Your task to perform on an android device: Go to eBay Image 0: 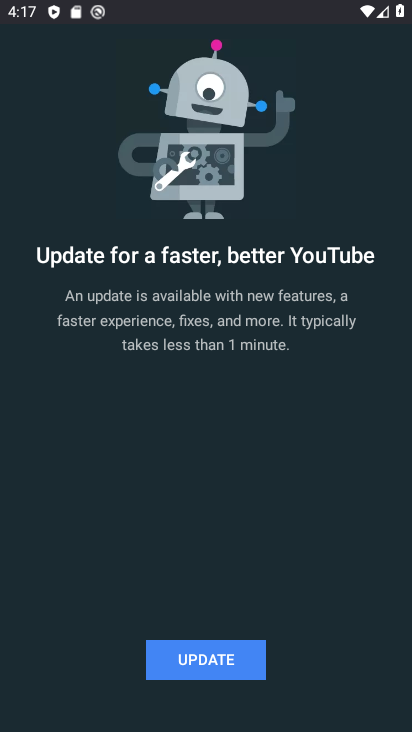
Step 0: press back button
Your task to perform on an android device: Go to eBay Image 1: 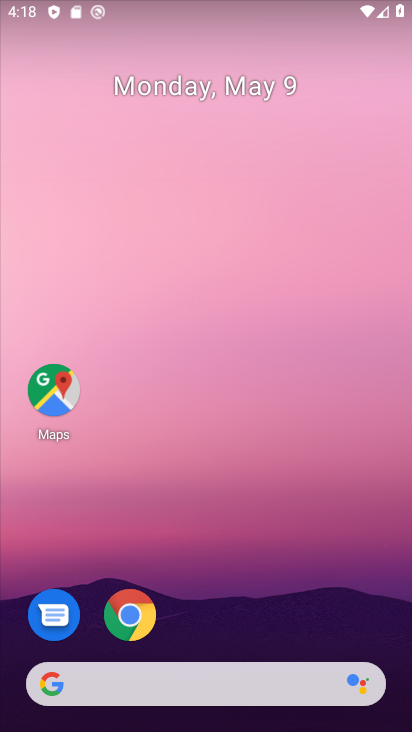
Step 1: click (148, 620)
Your task to perform on an android device: Go to eBay Image 2: 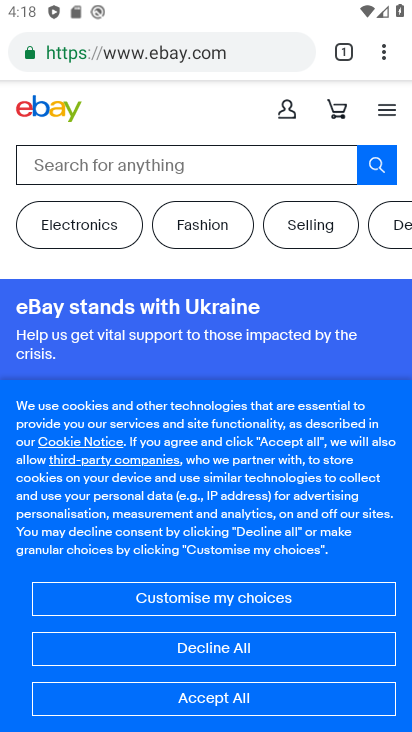
Step 2: click (262, 707)
Your task to perform on an android device: Go to eBay Image 3: 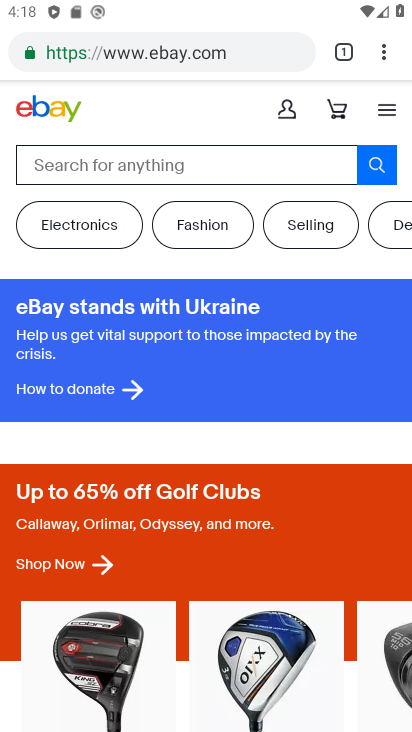
Step 3: task complete